Your task to perform on an android device: Search for seafood restaurants on Google Maps Image 0: 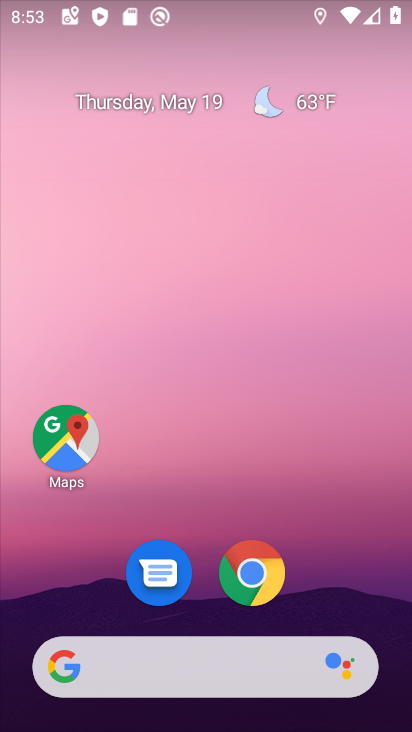
Step 0: click (60, 445)
Your task to perform on an android device: Search for seafood restaurants on Google Maps Image 1: 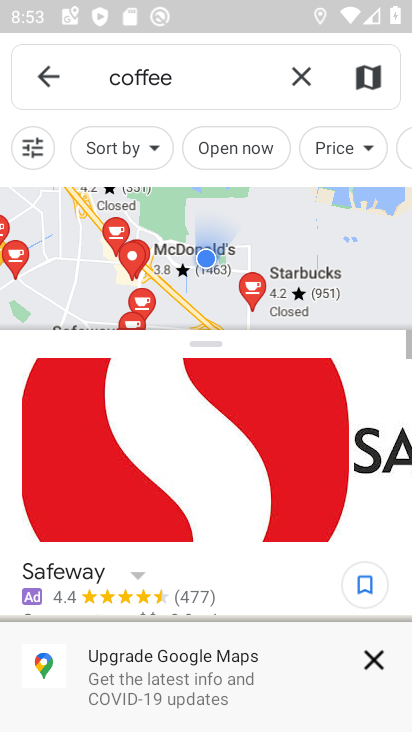
Step 1: click (298, 71)
Your task to perform on an android device: Search for seafood restaurants on Google Maps Image 2: 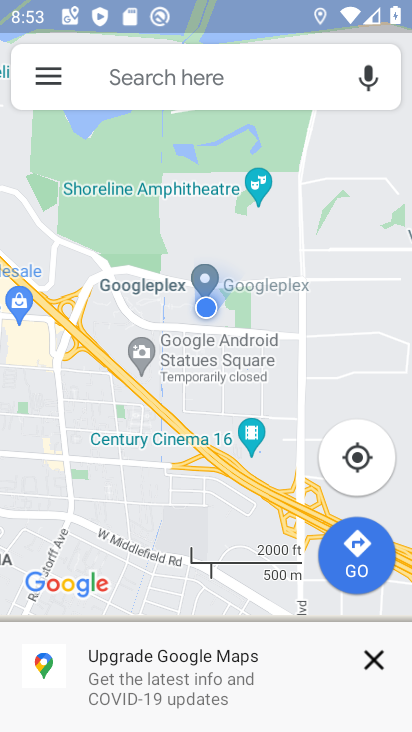
Step 2: click (115, 73)
Your task to perform on an android device: Search for seafood restaurants on Google Maps Image 3: 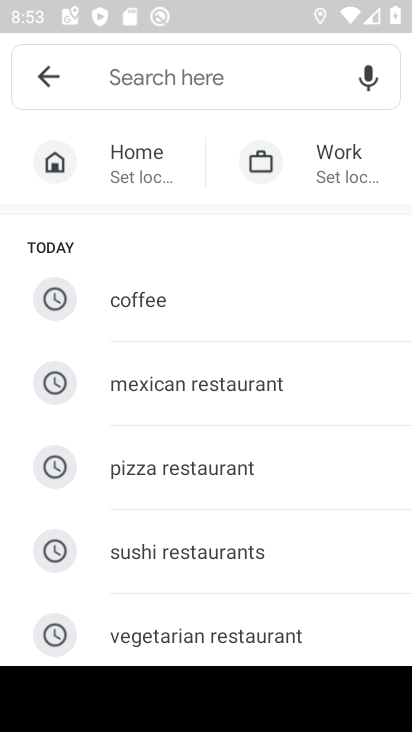
Step 3: type "seafood restaurant"
Your task to perform on an android device: Search for seafood restaurants on Google Maps Image 4: 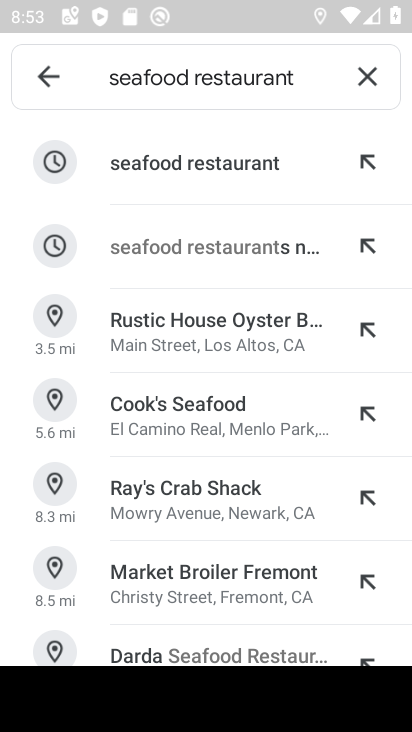
Step 4: click (188, 167)
Your task to perform on an android device: Search for seafood restaurants on Google Maps Image 5: 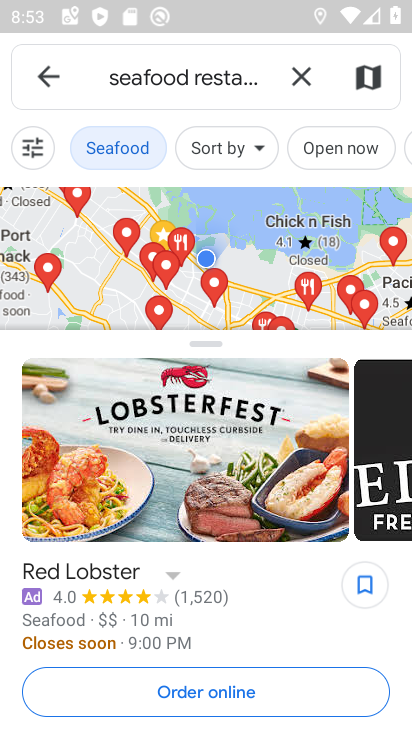
Step 5: task complete